Your task to perform on an android device: turn notification dots off Image 0: 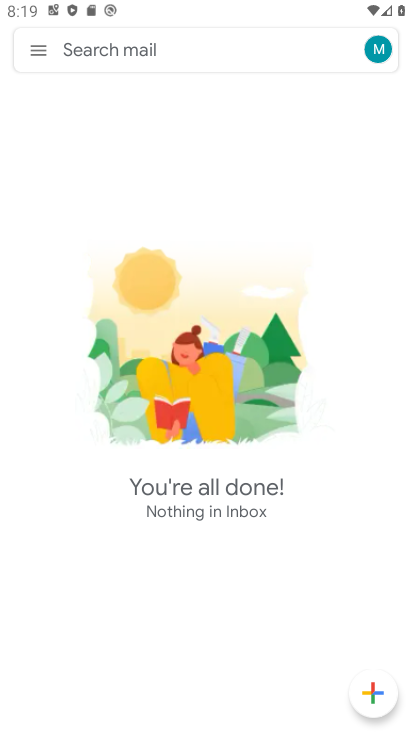
Step 0: press home button
Your task to perform on an android device: turn notification dots off Image 1: 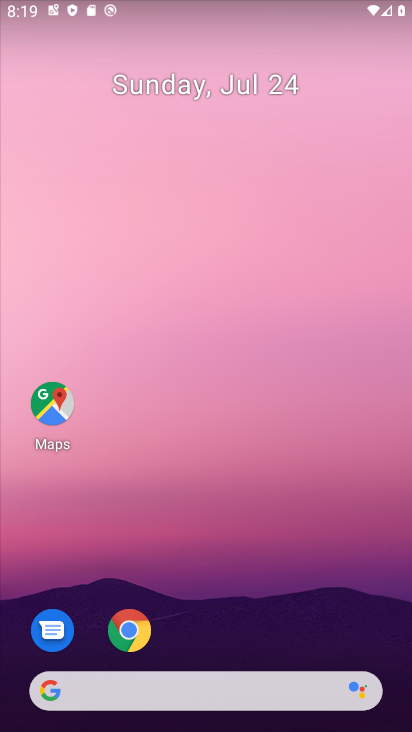
Step 1: drag from (243, 645) to (224, 102)
Your task to perform on an android device: turn notification dots off Image 2: 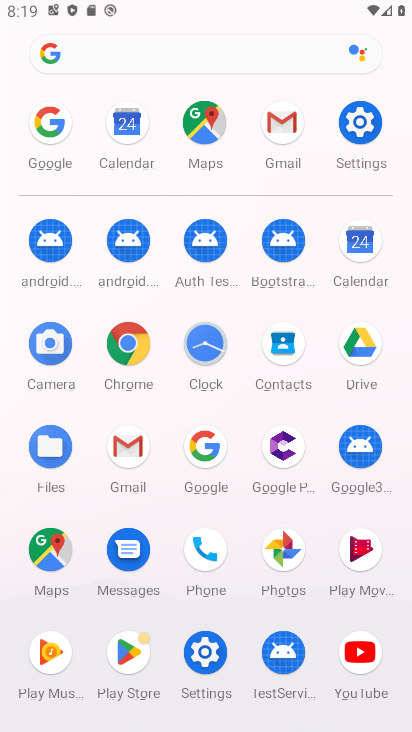
Step 2: click (342, 132)
Your task to perform on an android device: turn notification dots off Image 3: 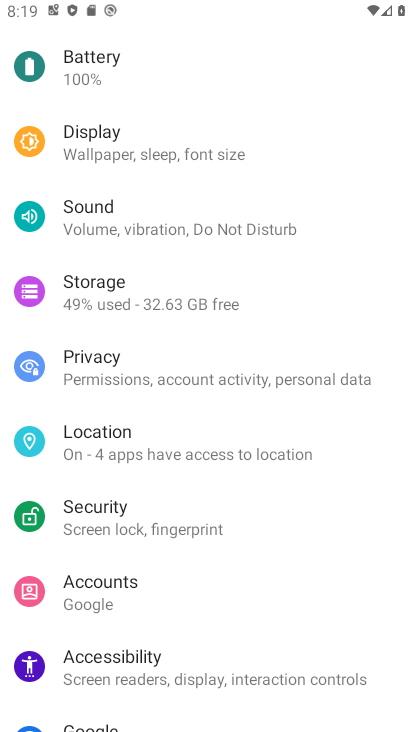
Step 3: drag from (165, 176) to (208, 515)
Your task to perform on an android device: turn notification dots off Image 4: 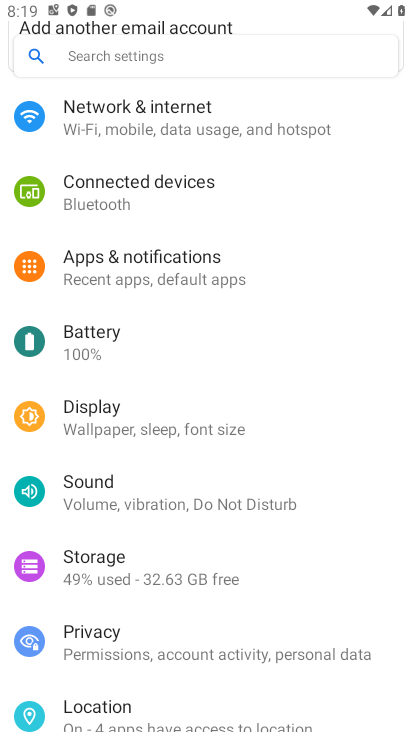
Step 4: click (212, 262)
Your task to perform on an android device: turn notification dots off Image 5: 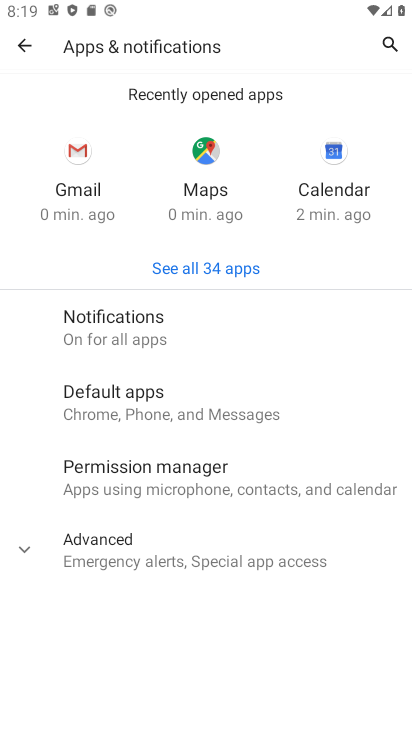
Step 5: click (241, 332)
Your task to perform on an android device: turn notification dots off Image 6: 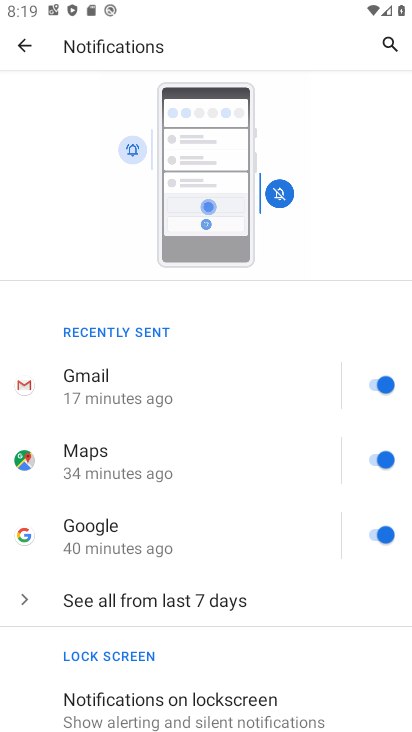
Step 6: drag from (243, 667) to (251, 248)
Your task to perform on an android device: turn notification dots off Image 7: 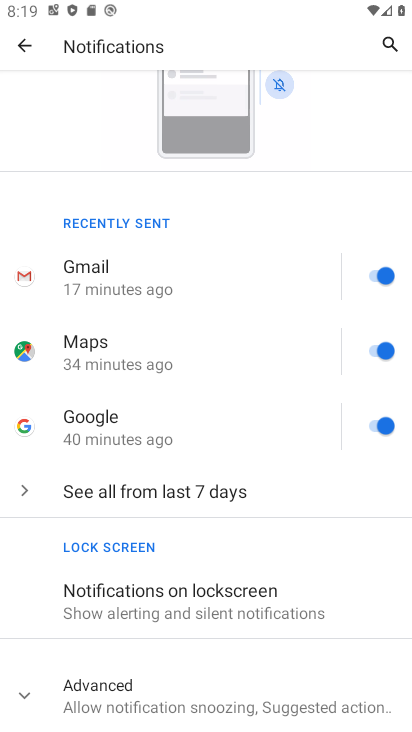
Step 7: click (268, 687)
Your task to perform on an android device: turn notification dots off Image 8: 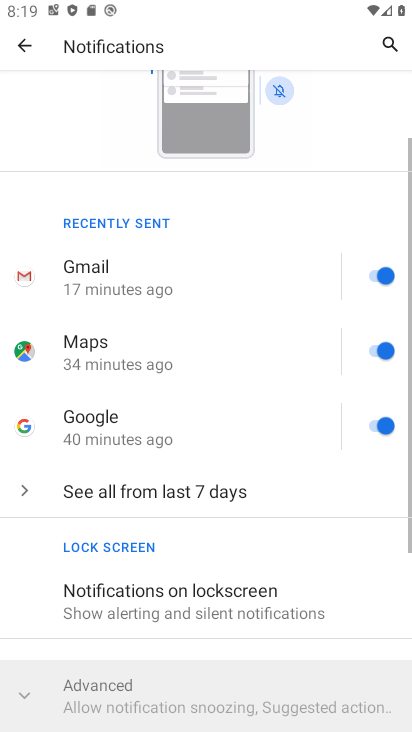
Step 8: drag from (265, 646) to (260, 364)
Your task to perform on an android device: turn notification dots off Image 9: 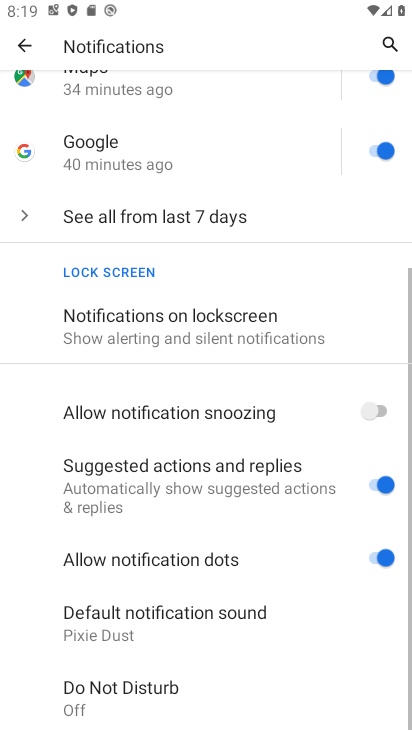
Step 9: drag from (269, 646) to (231, 240)
Your task to perform on an android device: turn notification dots off Image 10: 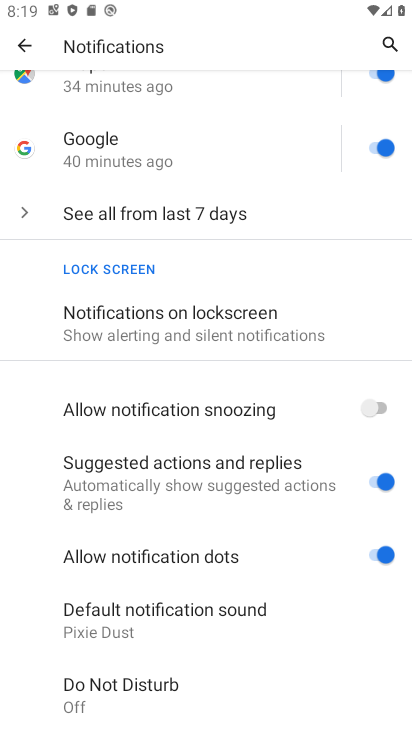
Step 10: click (374, 553)
Your task to perform on an android device: turn notification dots off Image 11: 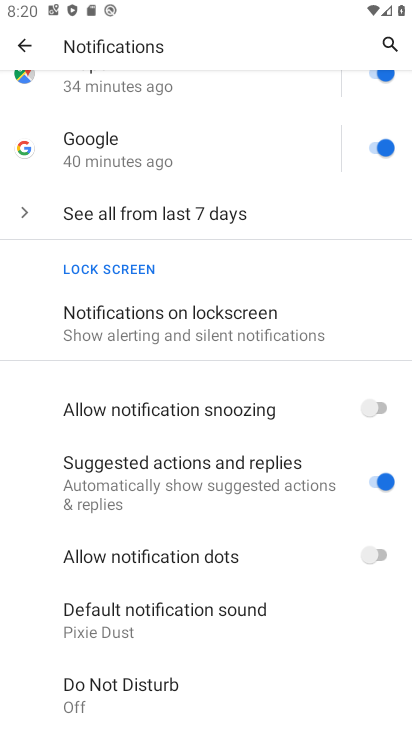
Step 11: task complete